Your task to perform on an android device: Open the map Image 0: 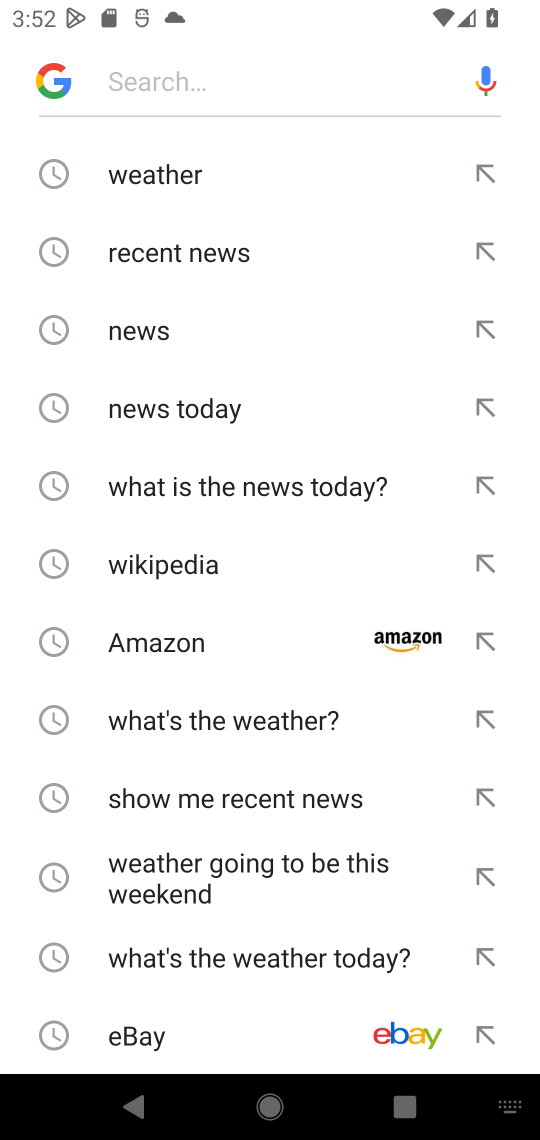
Step 0: press home button
Your task to perform on an android device: Open the map Image 1: 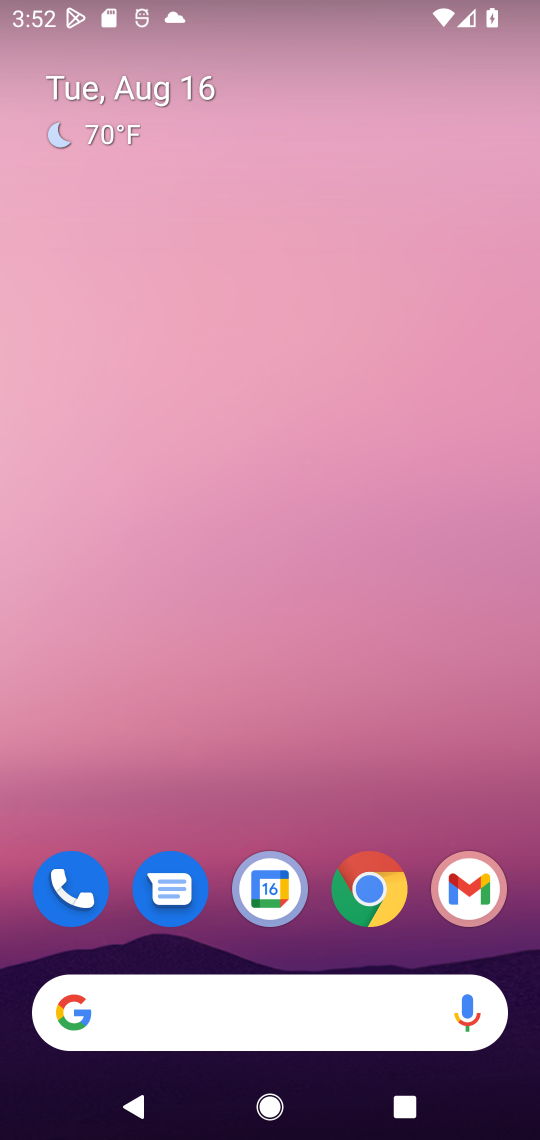
Step 1: drag from (312, 798) to (309, 472)
Your task to perform on an android device: Open the map Image 2: 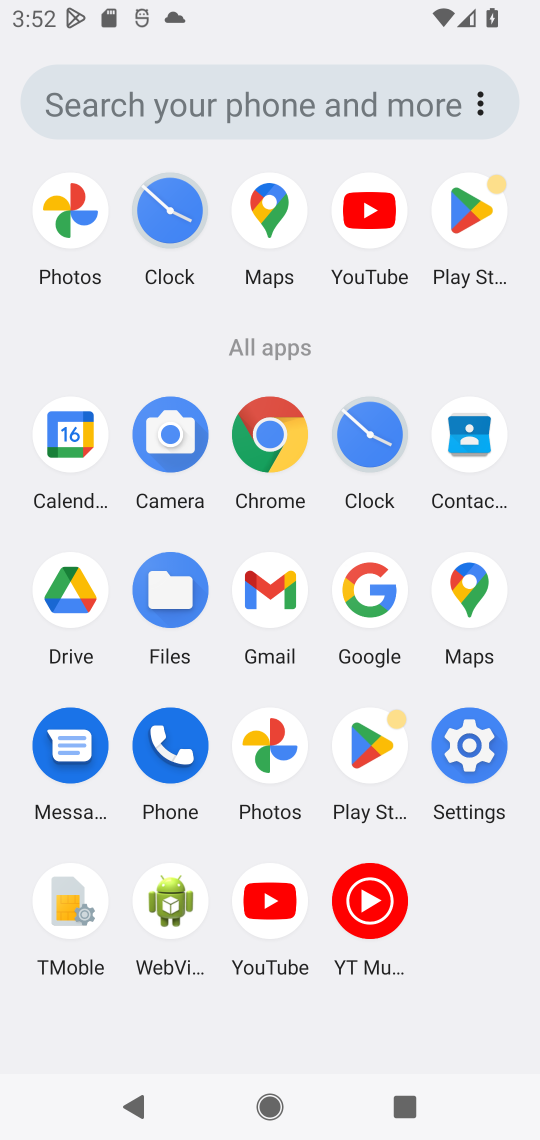
Step 2: click (458, 576)
Your task to perform on an android device: Open the map Image 3: 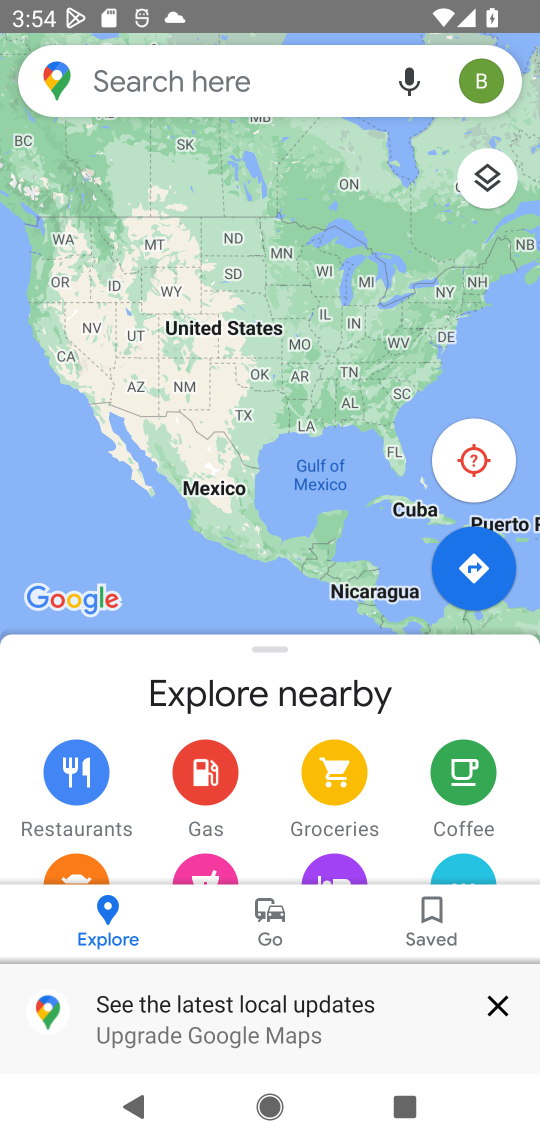
Step 3: task complete